Your task to perform on an android device: toggle sleep mode Image 0: 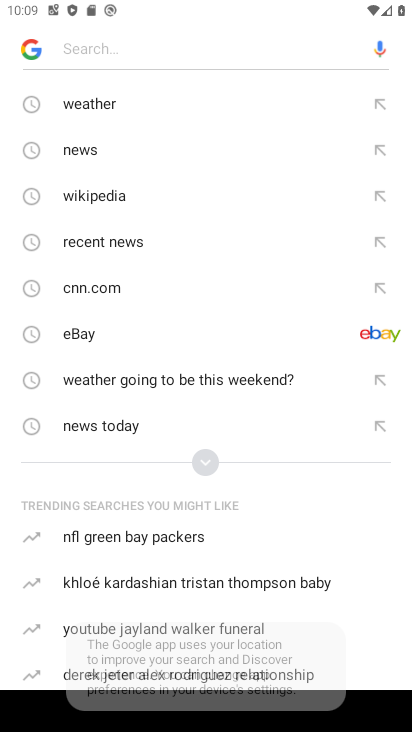
Step 0: press home button
Your task to perform on an android device: toggle sleep mode Image 1: 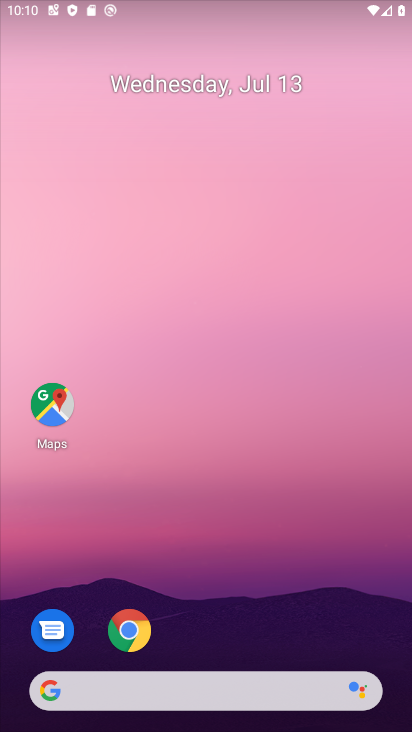
Step 1: drag from (304, 563) to (390, 39)
Your task to perform on an android device: toggle sleep mode Image 2: 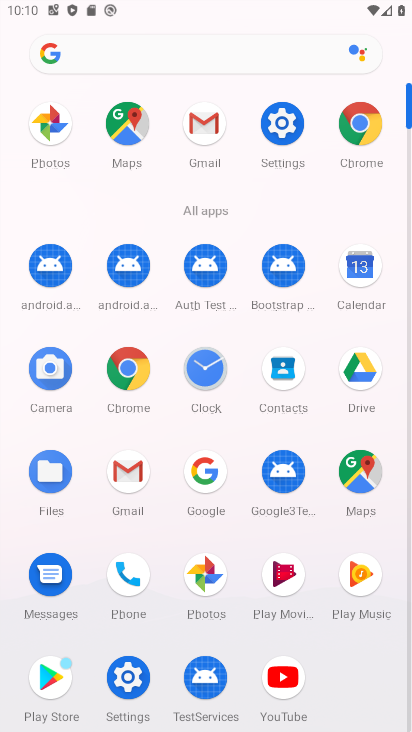
Step 2: click (292, 128)
Your task to perform on an android device: toggle sleep mode Image 3: 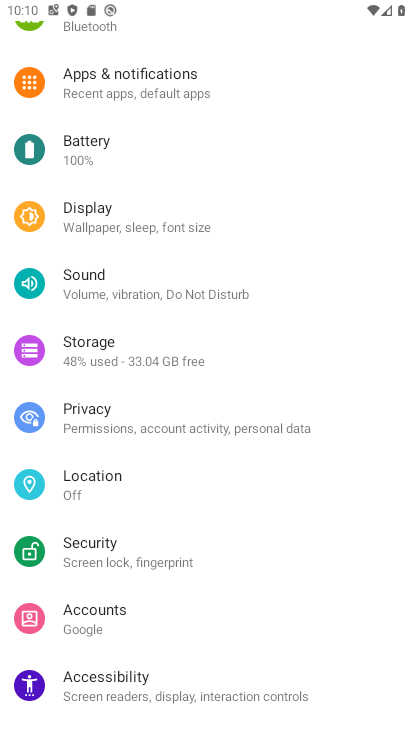
Step 3: click (130, 232)
Your task to perform on an android device: toggle sleep mode Image 4: 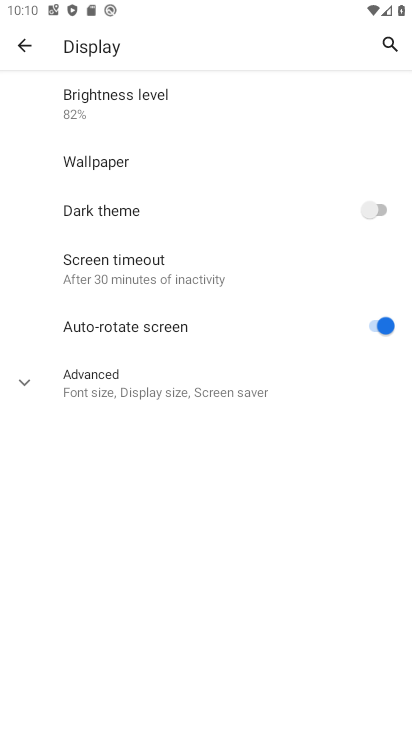
Step 4: click (102, 272)
Your task to perform on an android device: toggle sleep mode Image 5: 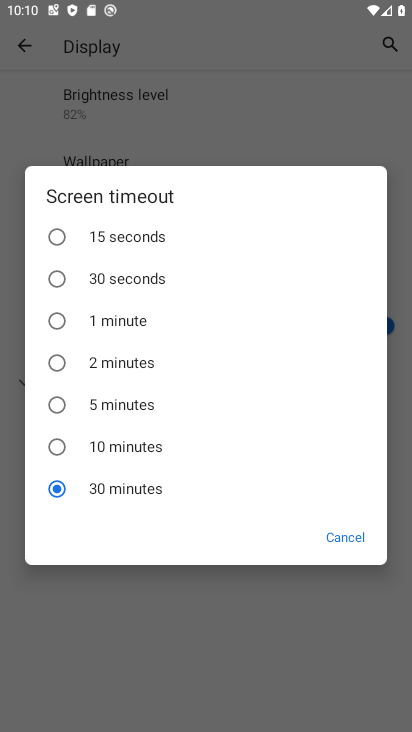
Step 5: click (67, 325)
Your task to perform on an android device: toggle sleep mode Image 6: 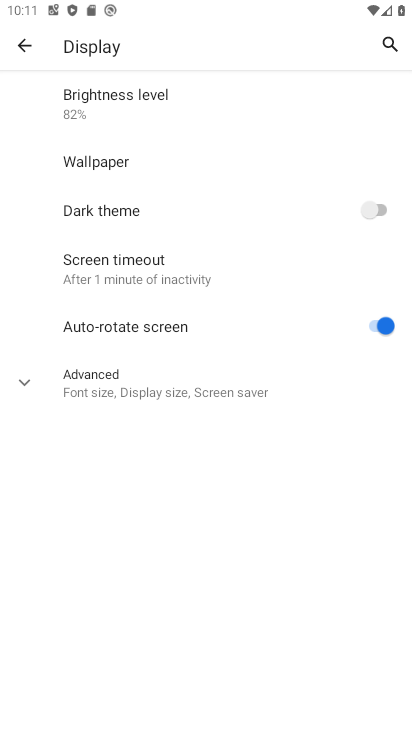
Step 6: task complete